Your task to perform on an android device: install app "Contacts" Image 0: 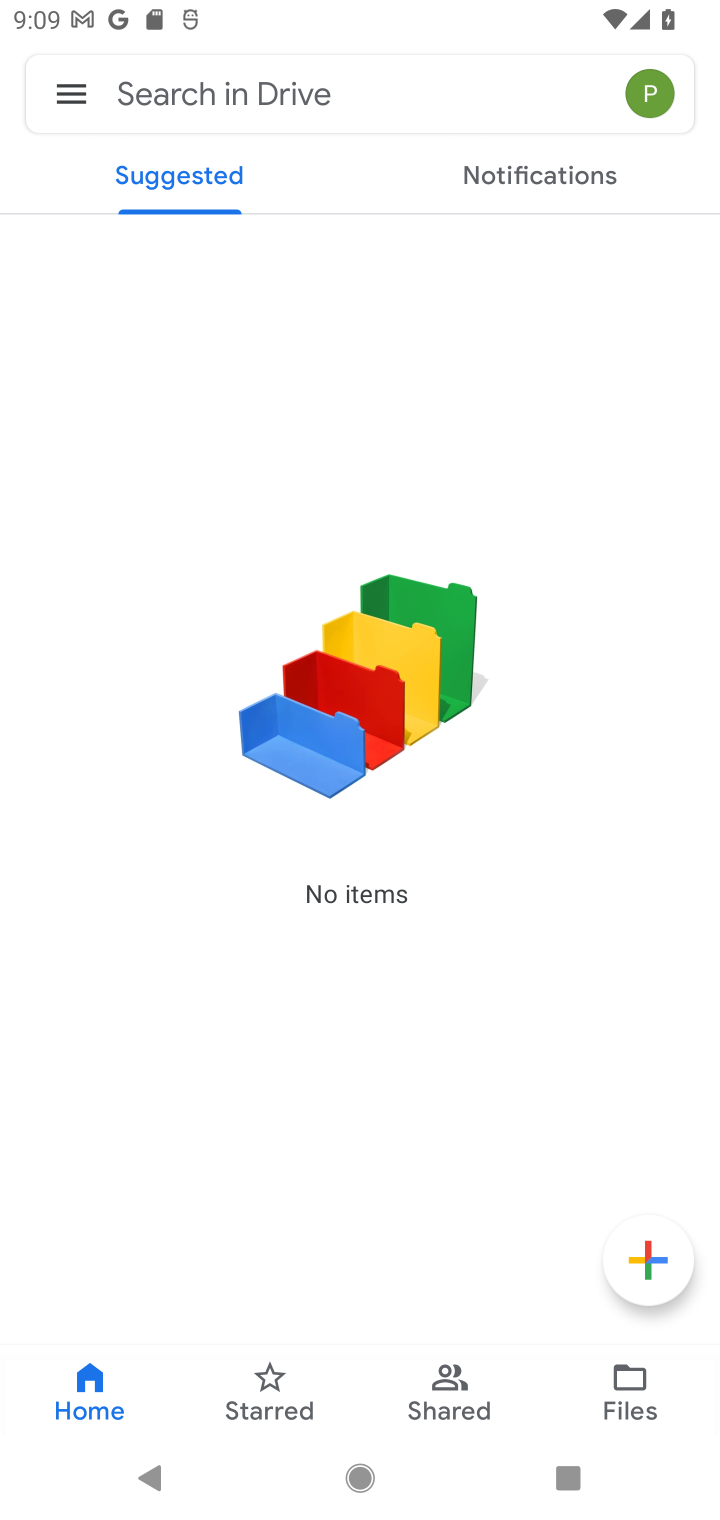
Step 0: press home button
Your task to perform on an android device: install app "Contacts" Image 1: 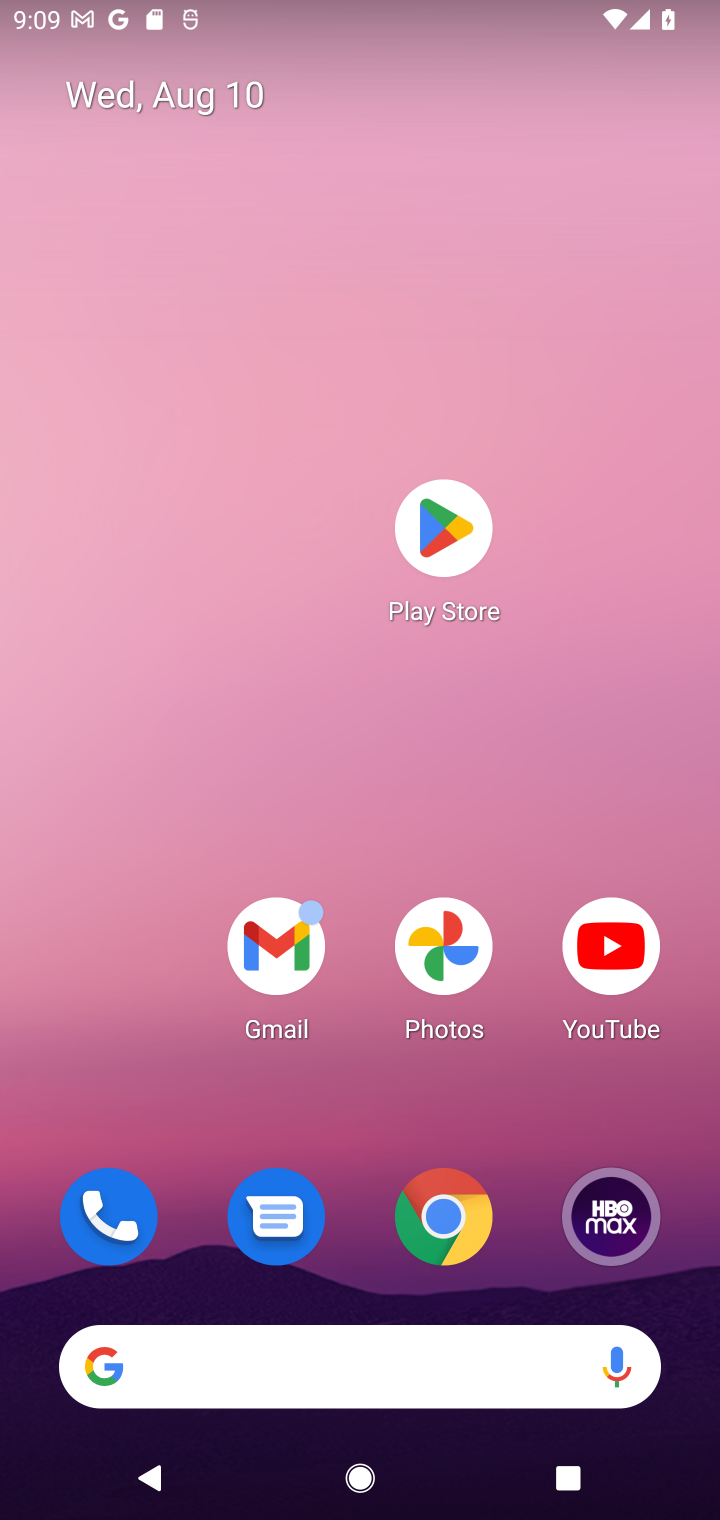
Step 1: click (441, 540)
Your task to perform on an android device: install app "Contacts" Image 2: 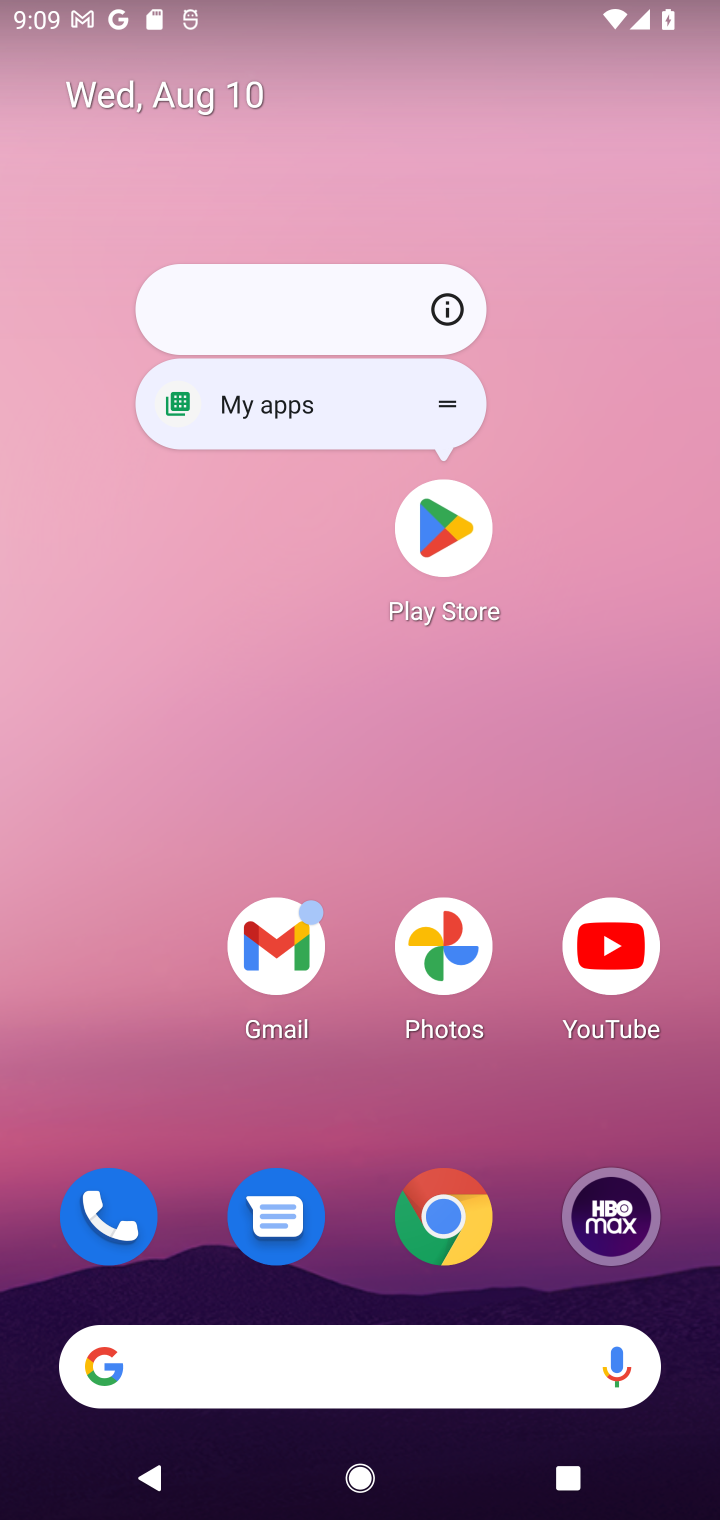
Step 2: click (441, 542)
Your task to perform on an android device: install app "Contacts" Image 3: 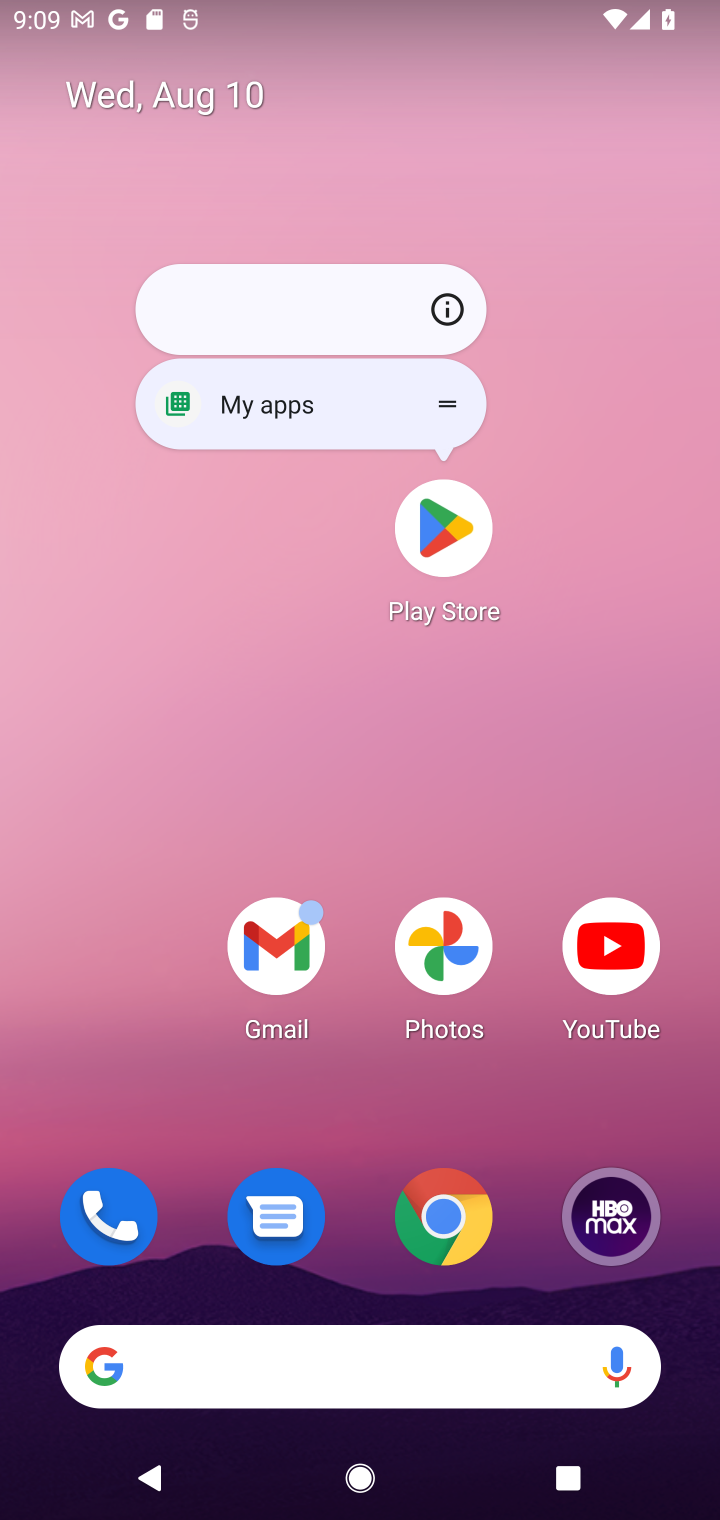
Step 3: click (441, 545)
Your task to perform on an android device: install app "Contacts" Image 4: 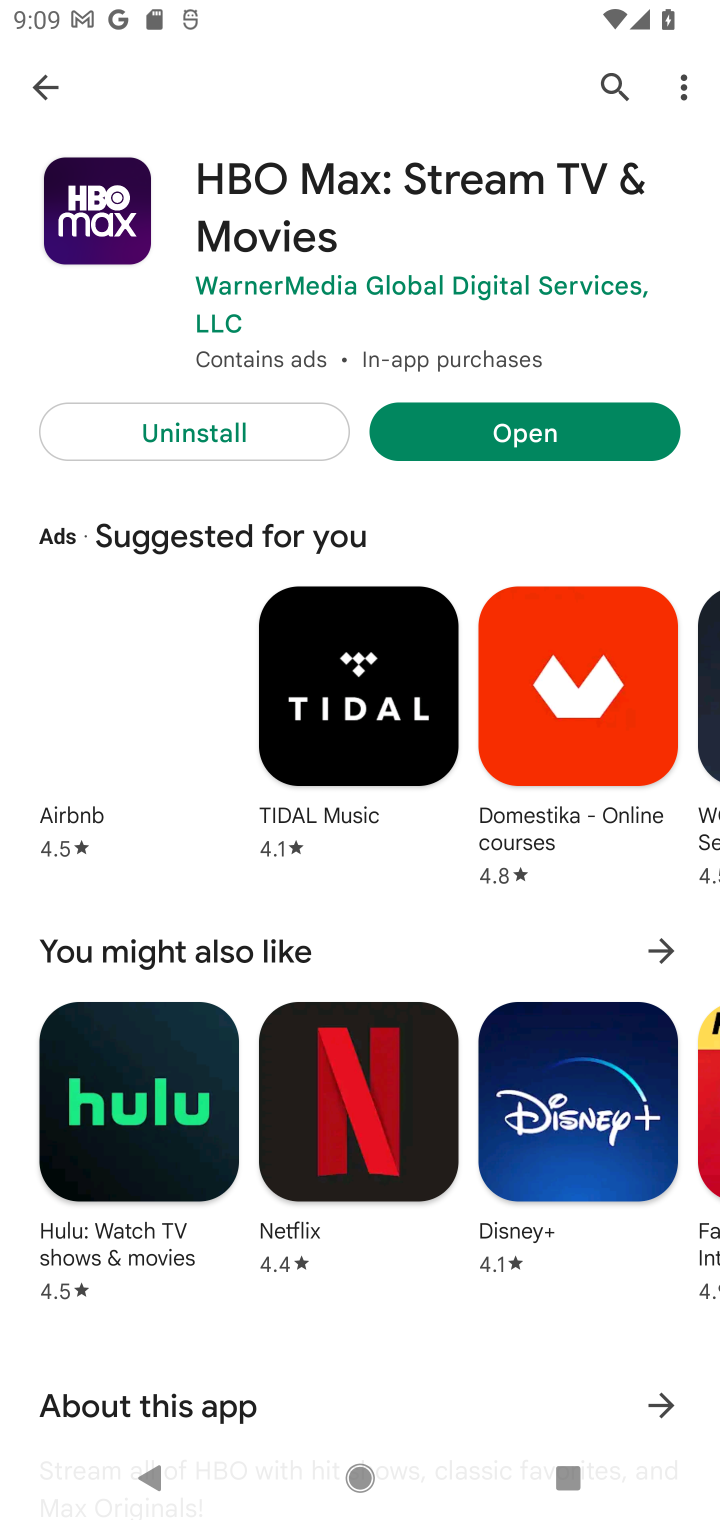
Step 4: click (602, 67)
Your task to perform on an android device: install app "Contacts" Image 5: 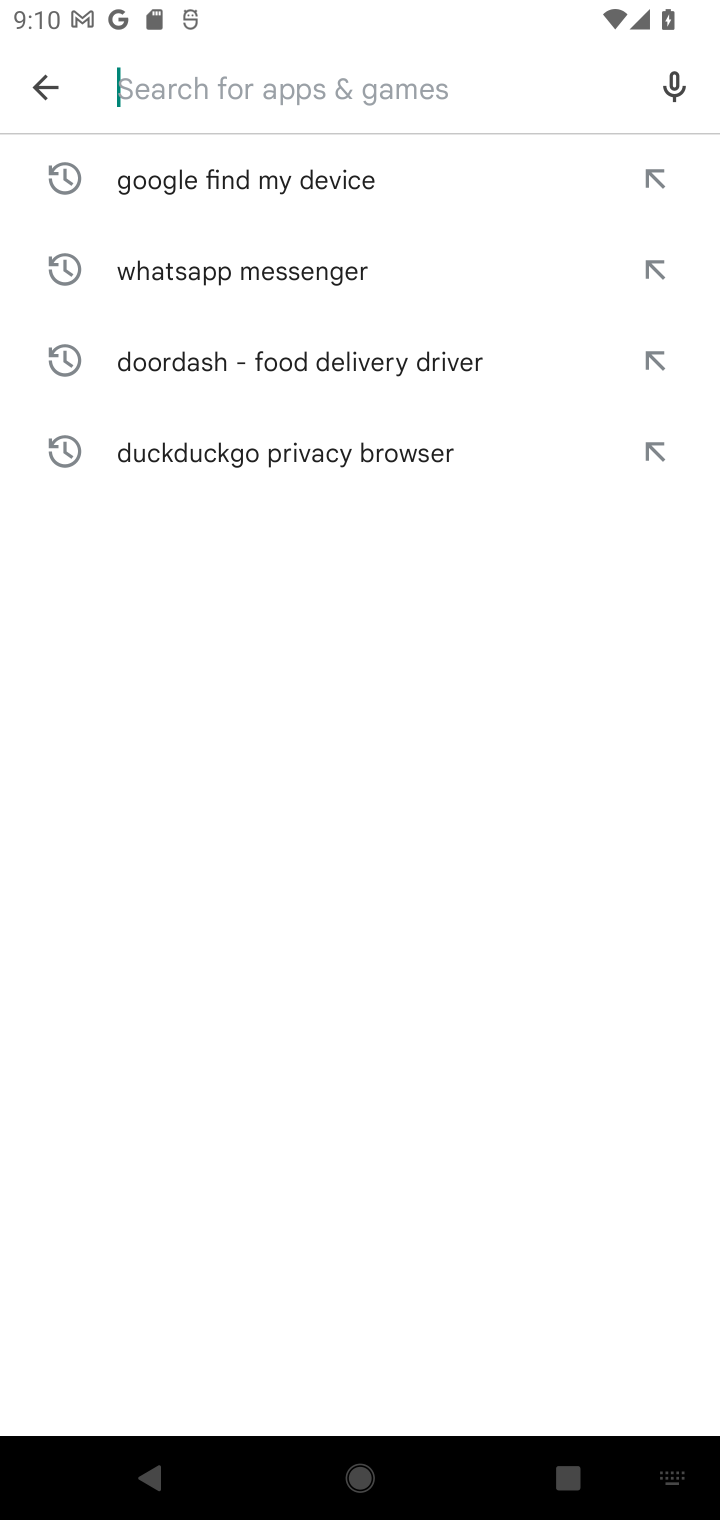
Step 5: type "Contacts"
Your task to perform on an android device: install app "Contacts" Image 6: 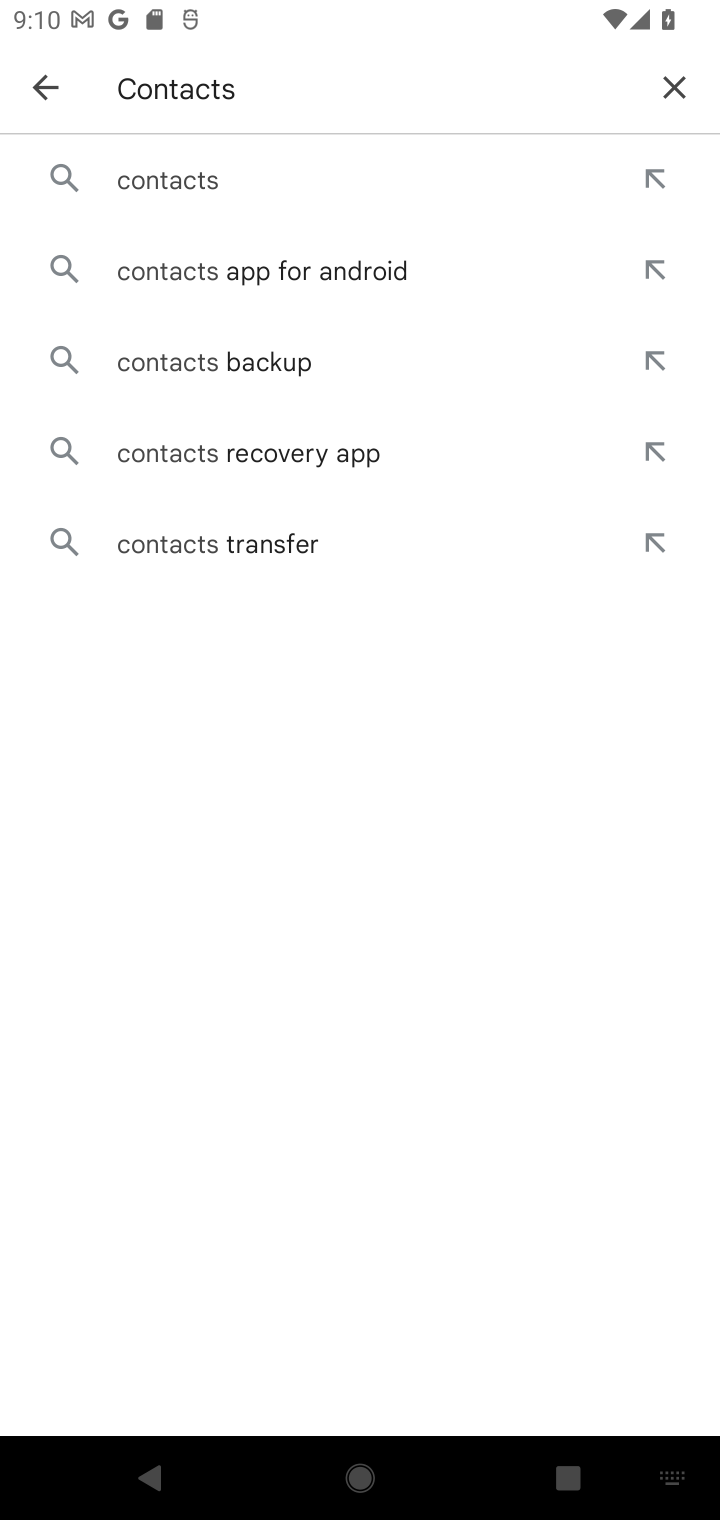
Step 6: click (162, 181)
Your task to perform on an android device: install app "Contacts" Image 7: 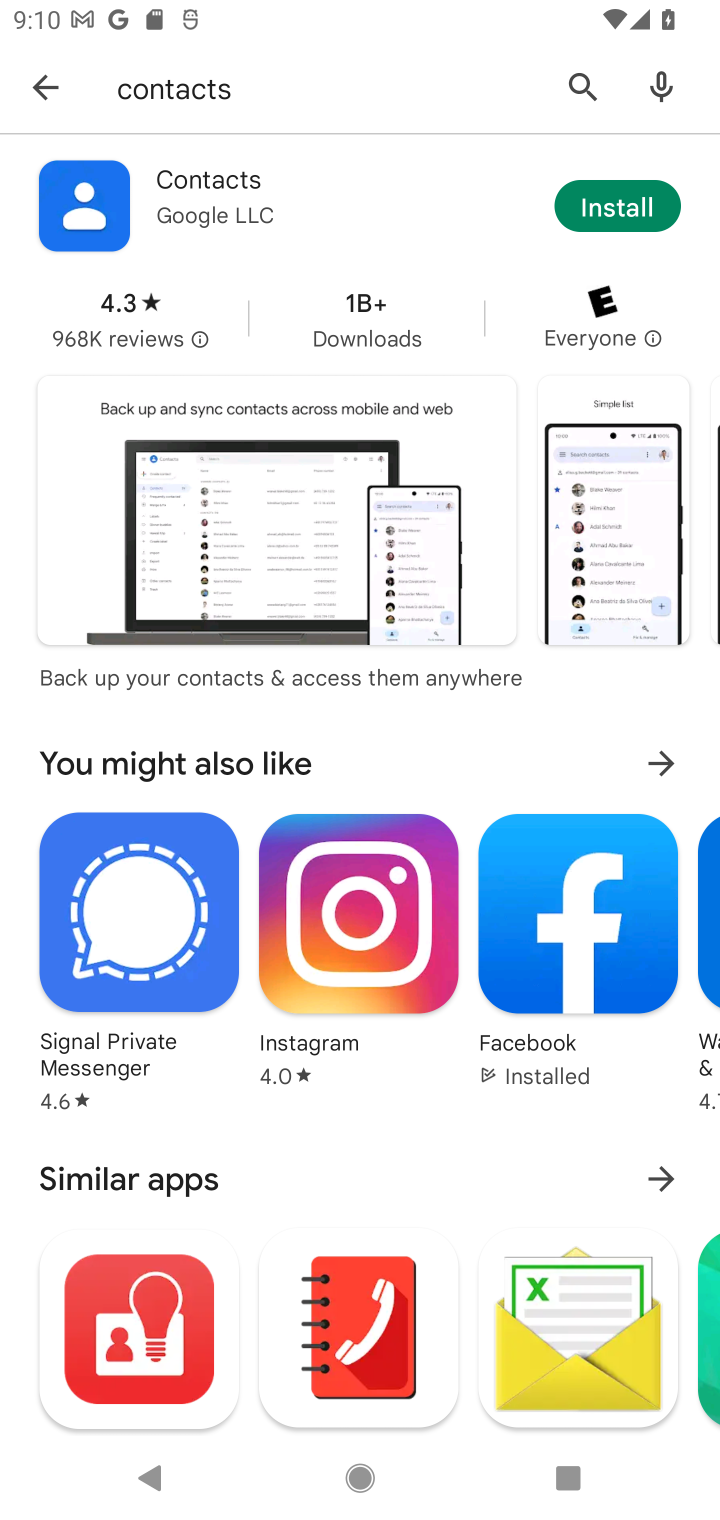
Step 7: click (628, 208)
Your task to perform on an android device: install app "Contacts" Image 8: 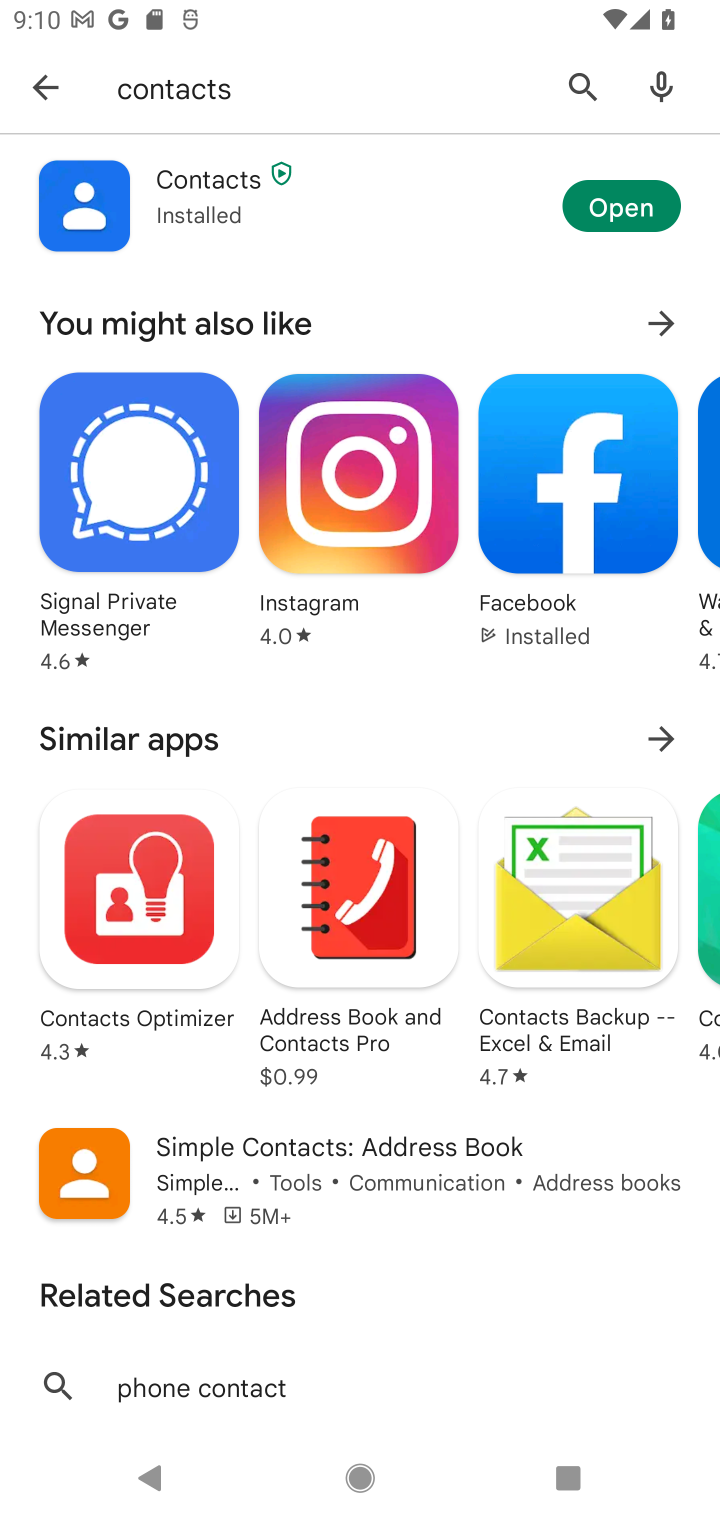
Step 8: task complete